Your task to perform on an android device: Open accessibility settings Image 0: 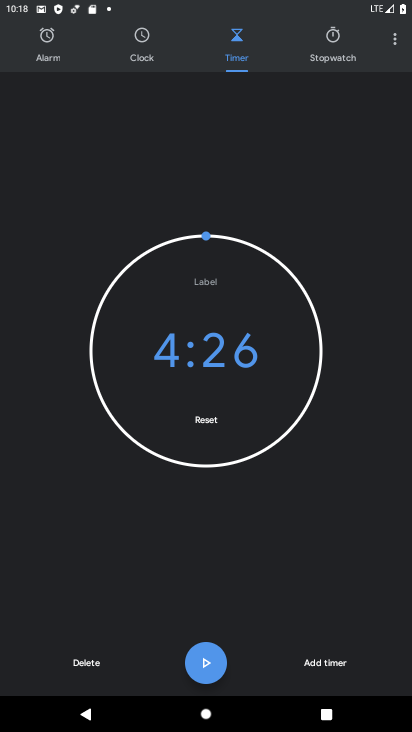
Step 0: press home button
Your task to perform on an android device: Open accessibility settings Image 1: 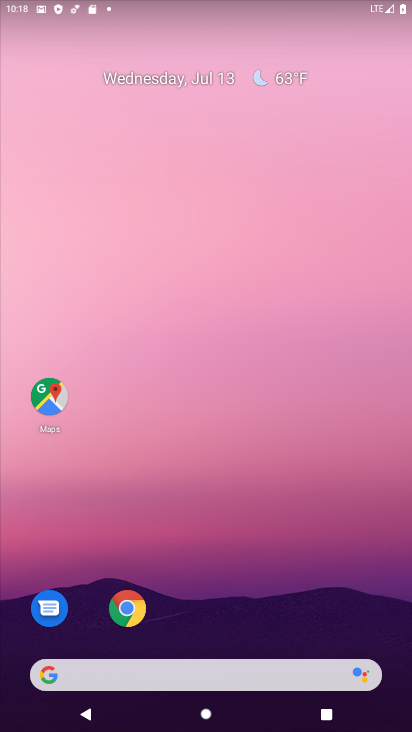
Step 1: drag from (205, 622) to (222, 18)
Your task to perform on an android device: Open accessibility settings Image 2: 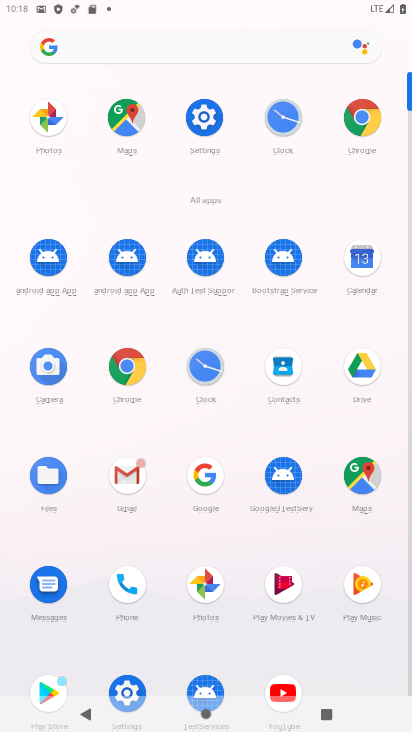
Step 2: click (199, 135)
Your task to perform on an android device: Open accessibility settings Image 3: 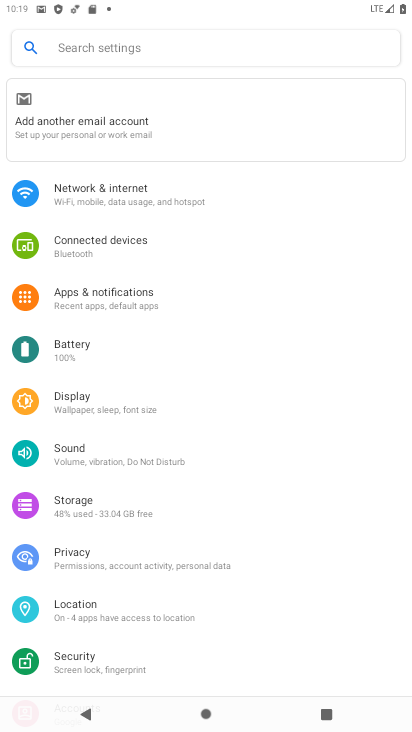
Step 3: drag from (124, 623) to (170, 259)
Your task to perform on an android device: Open accessibility settings Image 4: 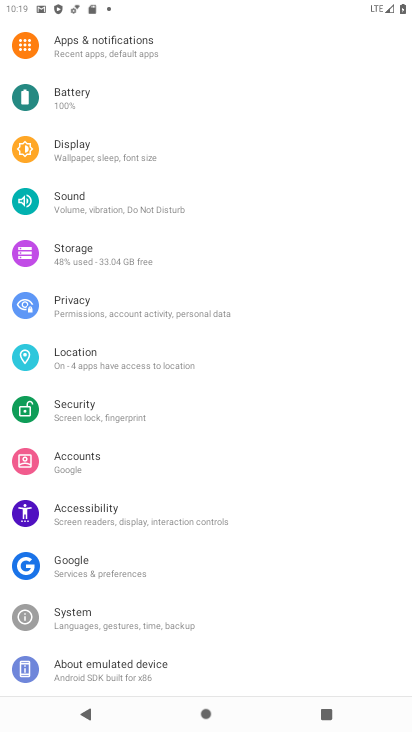
Step 4: click (135, 517)
Your task to perform on an android device: Open accessibility settings Image 5: 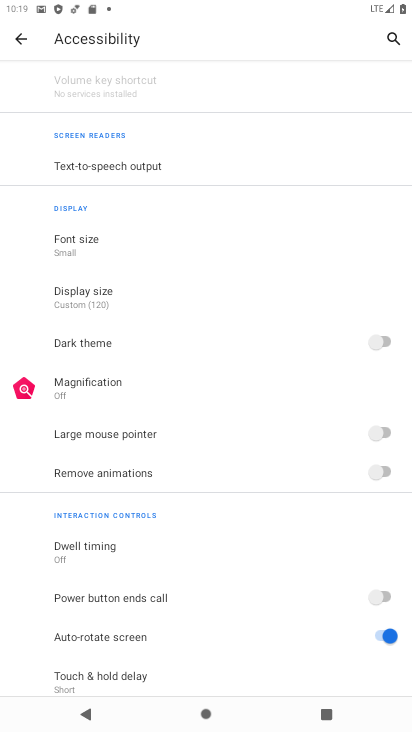
Step 5: task complete